Your task to perform on an android device: How do I get to the nearest Subway? Image 0: 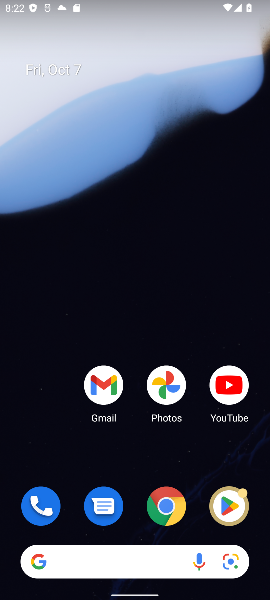
Step 0: click (163, 506)
Your task to perform on an android device: How do I get to the nearest Subway? Image 1: 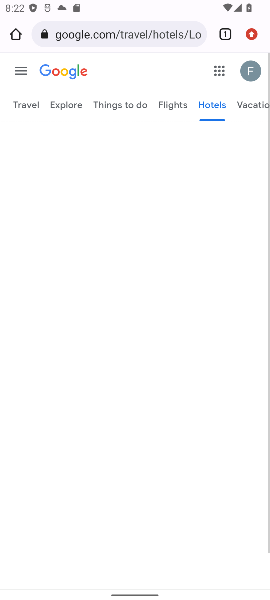
Step 1: click (172, 30)
Your task to perform on an android device: How do I get to the nearest Subway? Image 2: 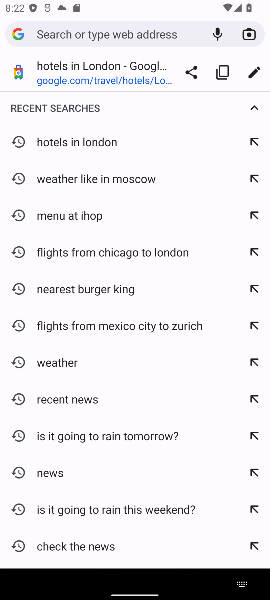
Step 2: type "nearest Subway"
Your task to perform on an android device: How do I get to the nearest Subway? Image 3: 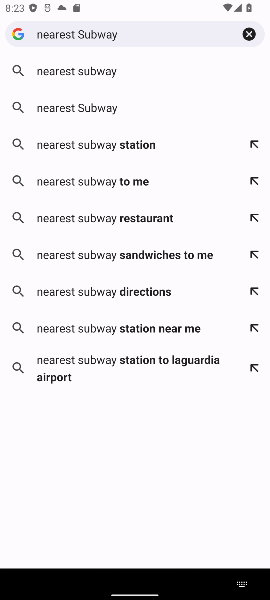
Step 3: click (63, 73)
Your task to perform on an android device: How do I get to the nearest Subway? Image 4: 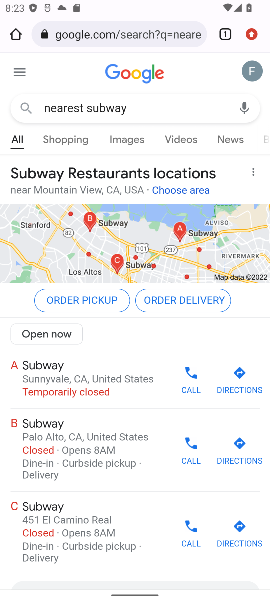
Step 4: drag from (104, 529) to (148, 317)
Your task to perform on an android device: How do I get to the nearest Subway? Image 5: 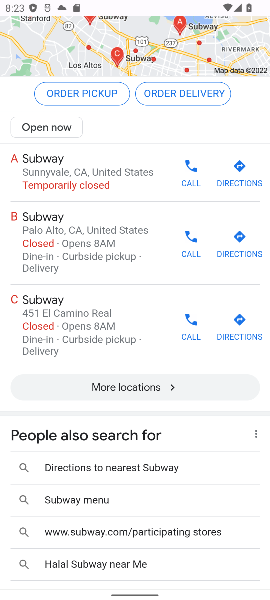
Step 5: drag from (133, 285) to (165, 390)
Your task to perform on an android device: How do I get to the nearest Subway? Image 6: 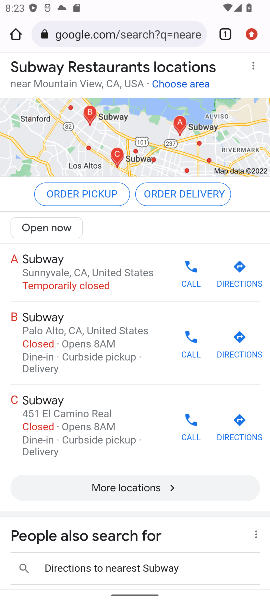
Step 6: click (162, 486)
Your task to perform on an android device: How do I get to the nearest Subway? Image 7: 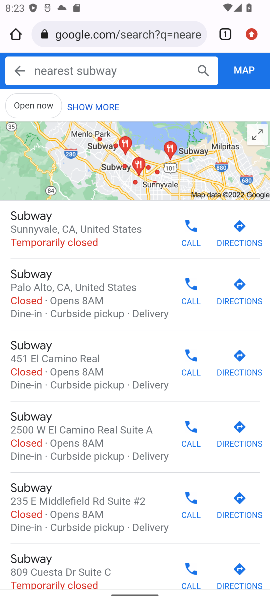
Step 7: task complete